Your task to perform on an android device: install app "Firefox Browser" Image 0: 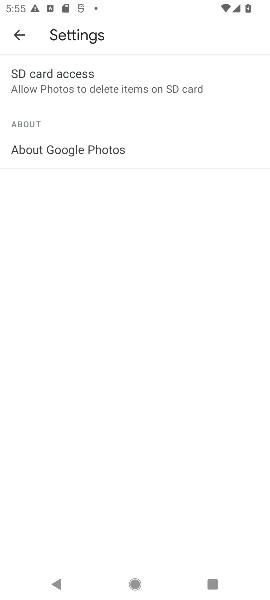
Step 0: press home button
Your task to perform on an android device: install app "Firefox Browser" Image 1: 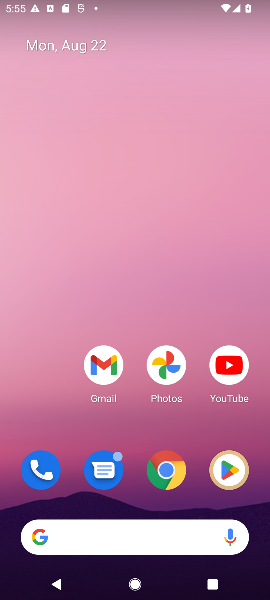
Step 1: click (125, 521)
Your task to perform on an android device: install app "Firefox Browser" Image 2: 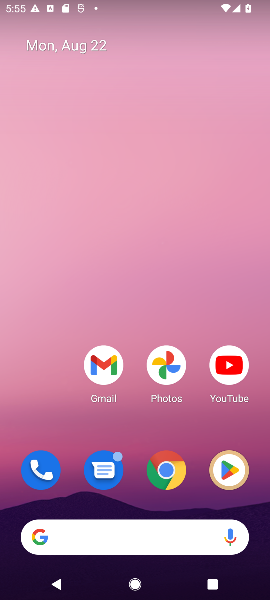
Step 2: click (225, 463)
Your task to perform on an android device: install app "Firefox Browser" Image 3: 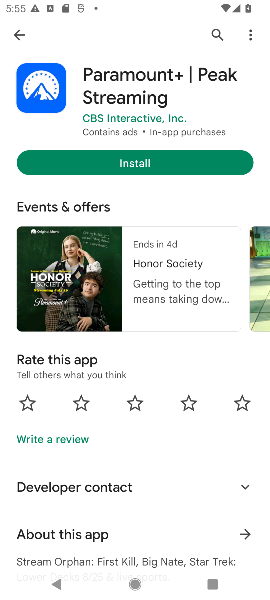
Step 3: click (22, 33)
Your task to perform on an android device: install app "Firefox Browser" Image 4: 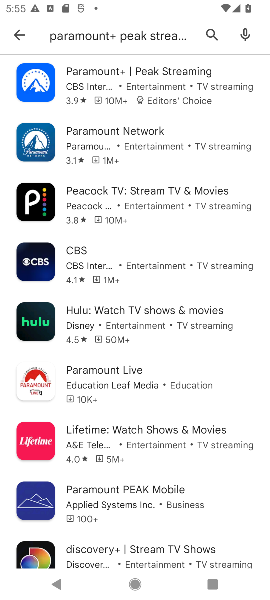
Step 4: click (22, 32)
Your task to perform on an android device: install app "Firefox Browser" Image 5: 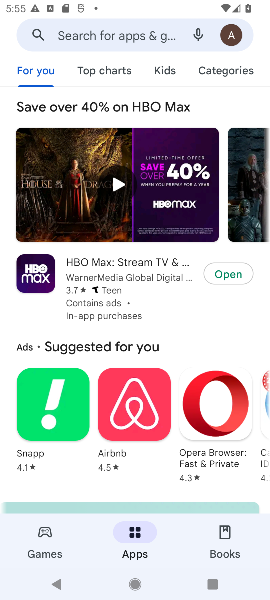
Step 5: click (117, 24)
Your task to perform on an android device: install app "Firefox Browser" Image 6: 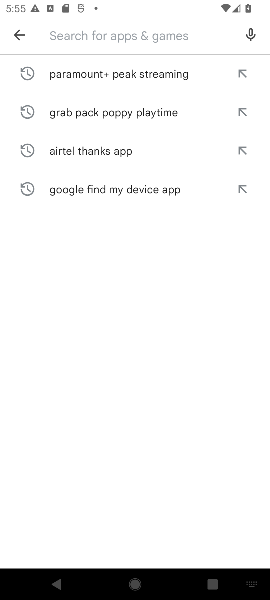
Step 6: type "Firefox Browser "
Your task to perform on an android device: install app "Firefox Browser" Image 7: 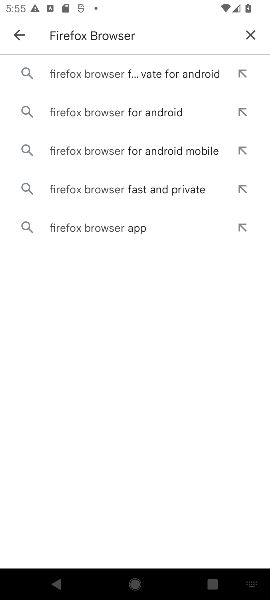
Step 7: click (111, 63)
Your task to perform on an android device: install app "Firefox Browser" Image 8: 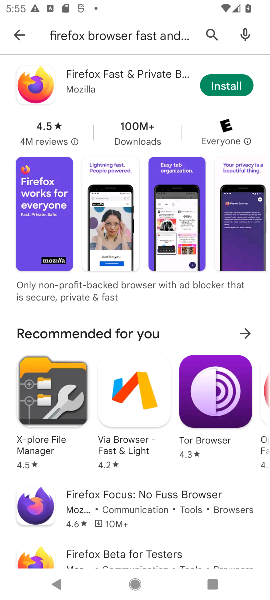
Step 8: click (236, 86)
Your task to perform on an android device: install app "Firefox Browser" Image 9: 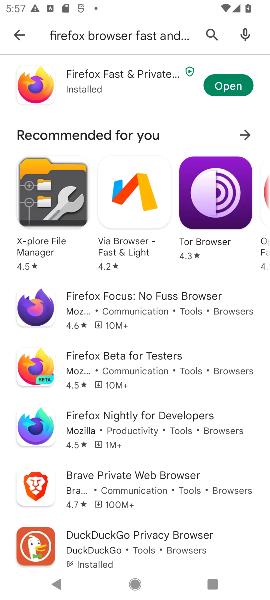
Step 9: click (231, 80)
Your task to perform on an android device: install app "Firefox Browser" Image 10: 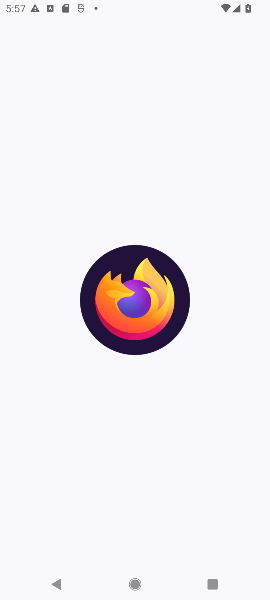
Step 10: task complete